Your task to perform on an android device: choose inbox layout in the gmail app Image 0: 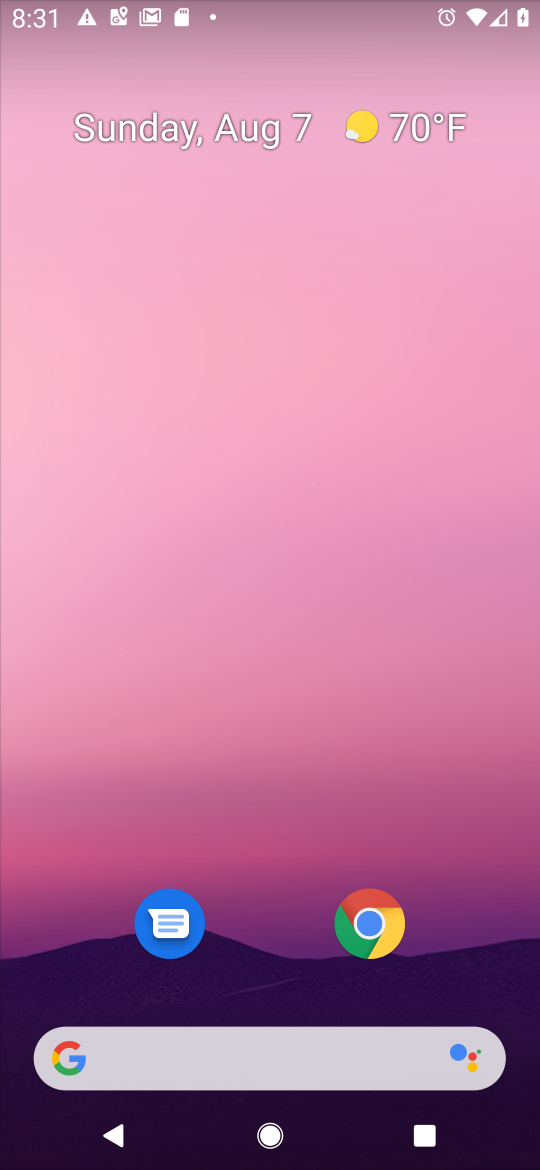
Step 0: drag from (455, 882) to (323, 60)
Your task to perform on an android device: choose inbox layout in the gmail app Image 1: 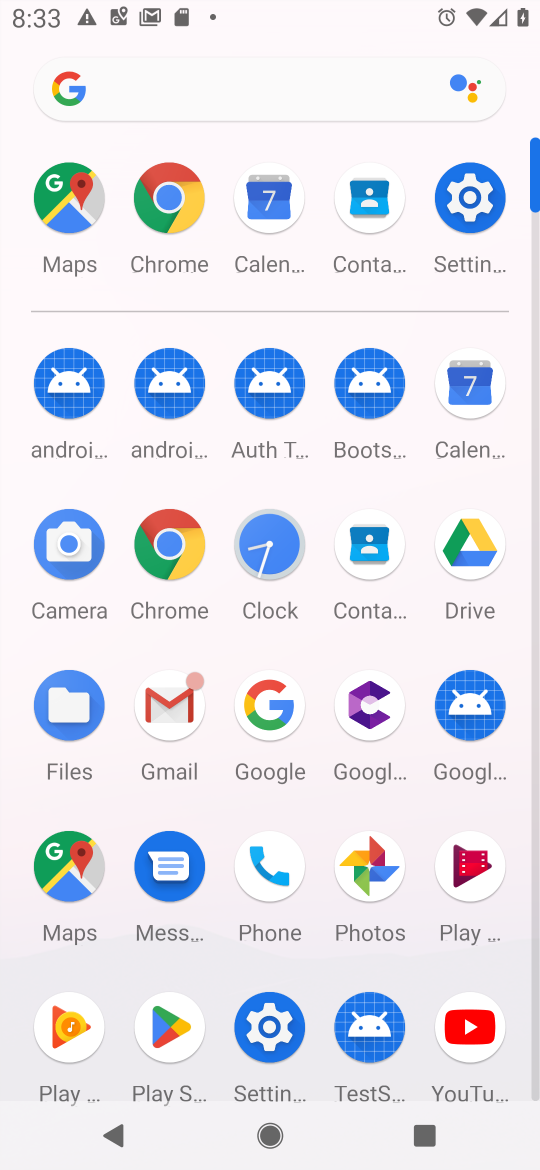
Step 1: click (183, 681)
Your task to perform on an android device: choose inbox layout in the gmail app Image 2: 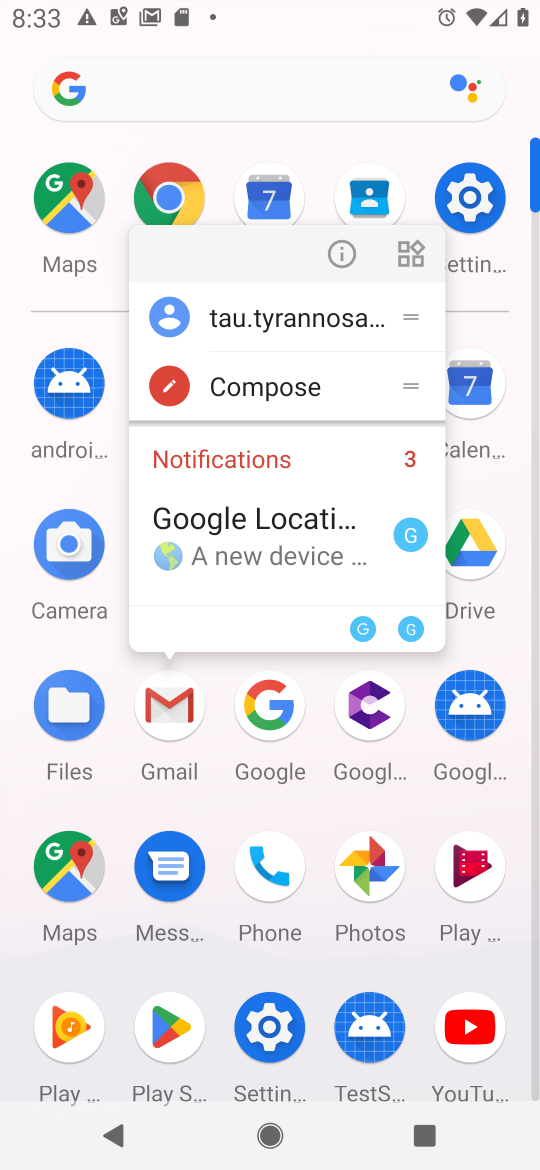
Step 2: click (164, 723)
Your task to perform on an android device: choose inbox layout in the gmail app Image 3: 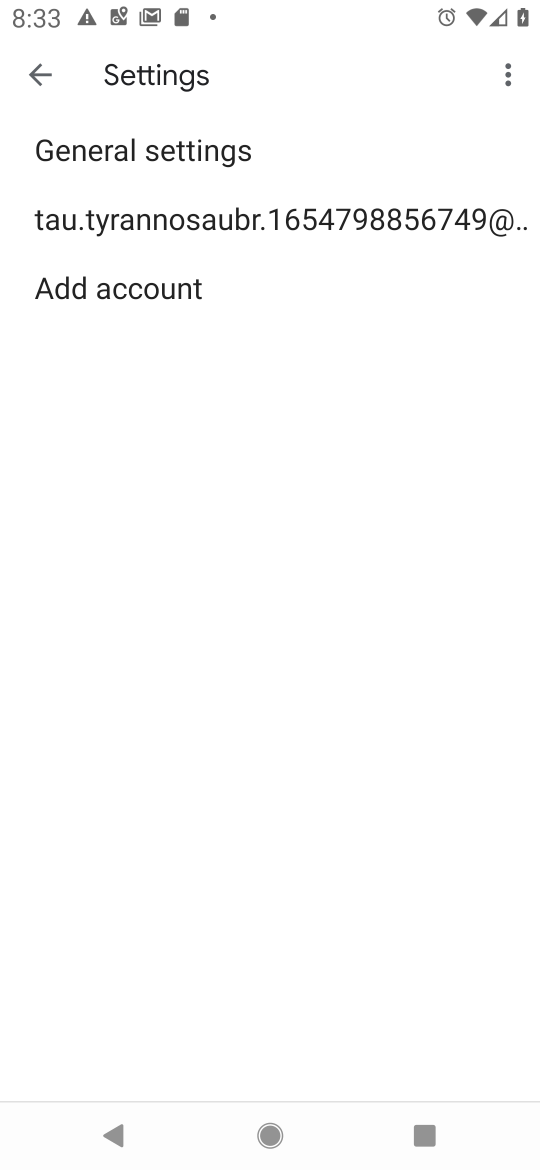
Step 3: task complete